Your task to perform on an android device: set an alarm Image 0: 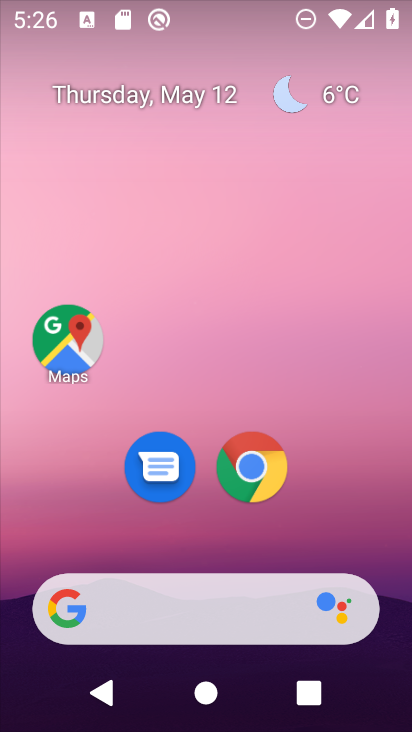
Step 0: drag from (214, 591) to (310, 73)
Your task to perform on an android device: set an alarm Image 1: 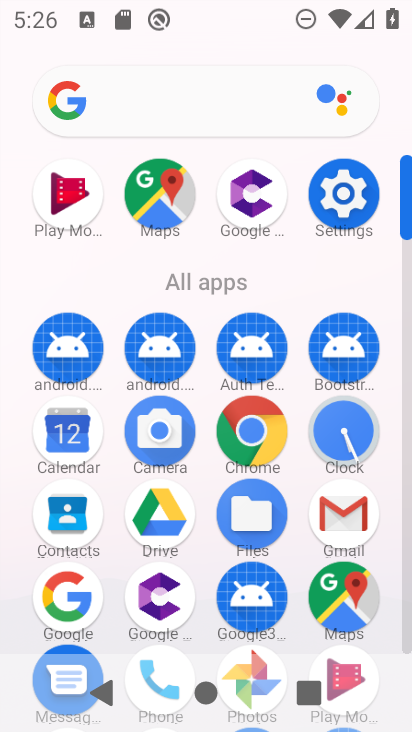
Step 1: click (343, 416)
Your task to perform on an android device: set an alarm Image 2: 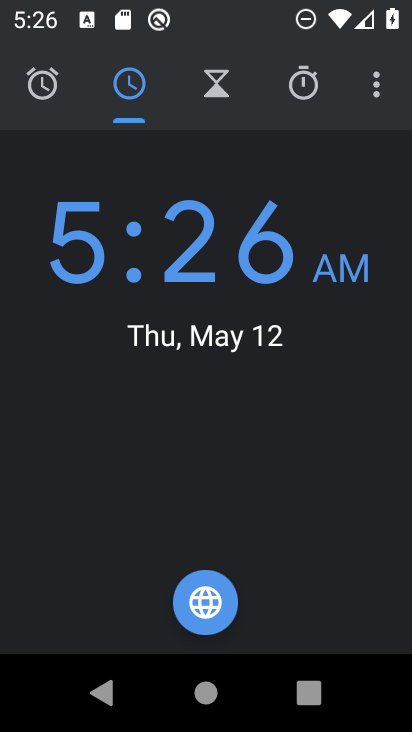
Step 2: click (64, 94)
Your task to perform on an android device: set an alarm Image 3: 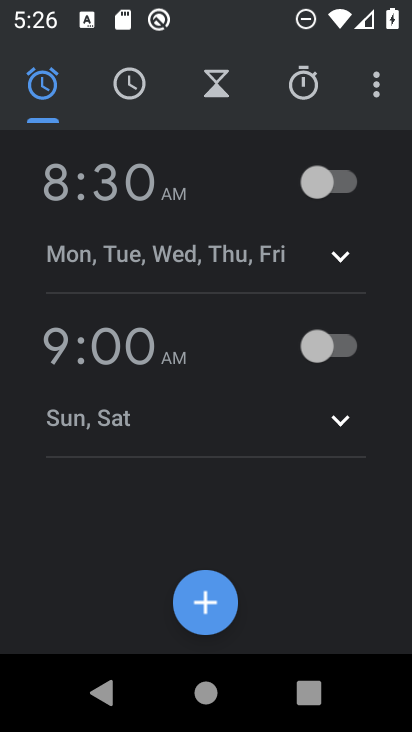
Step 3: click (344, 178)
Your task to perform on an android device: set an alarm Image 4: 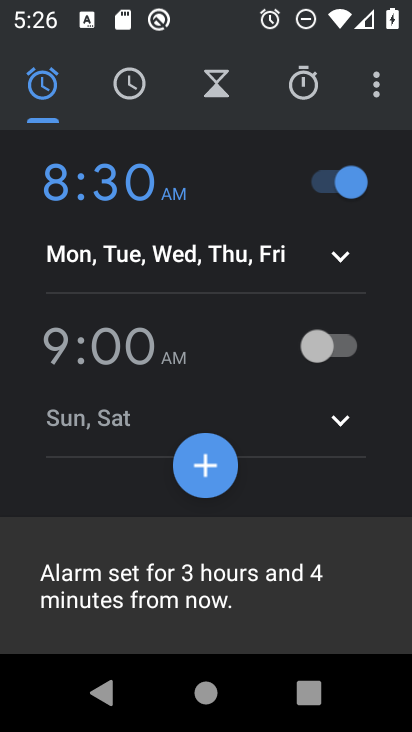
Step 4: task complete